Your task to perform on an android device: Search for sushi restaurants on Maps Image 0: 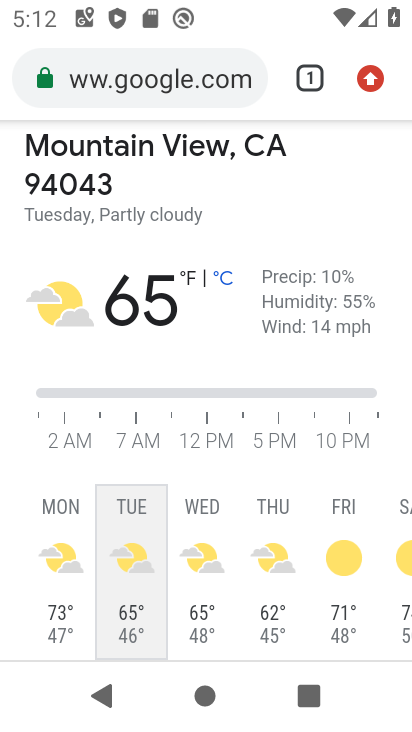
Step 0: press home button
Your task to perform on an android device: Search for sushi restaurants on Maps Image 1: 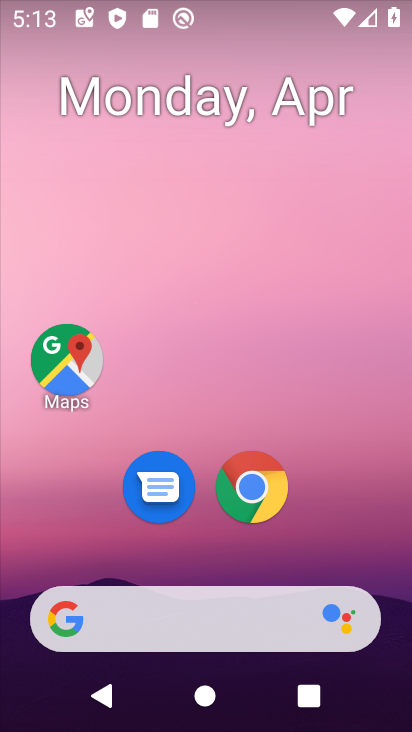
Step 1: click (66, 355)
Your task to perform on an android device: Search for sushi restaurants on Maps Image 2: 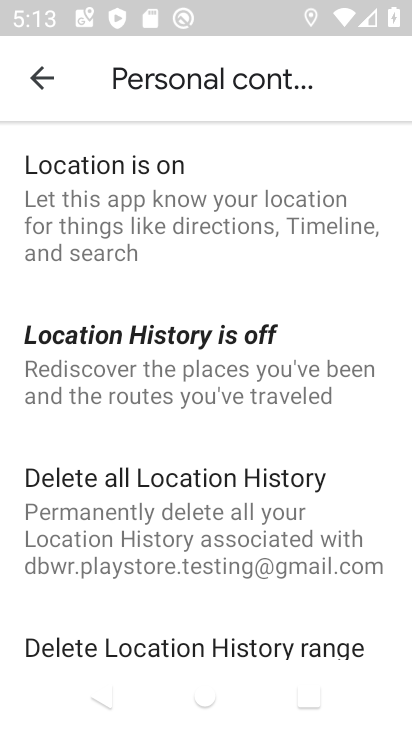
Step 2: press back button
Your task to perform on an android device: Search for sushi restaurants on Maps Image 3: 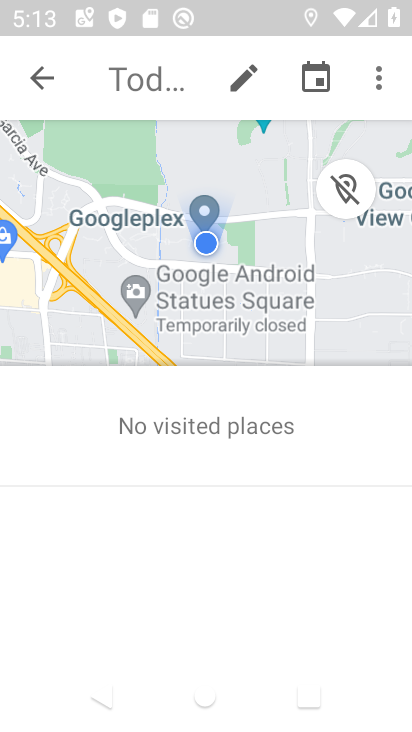
Step 3: press back button
Your task to perform on an android device: Search for sushi restaurants on Maps Image 4: 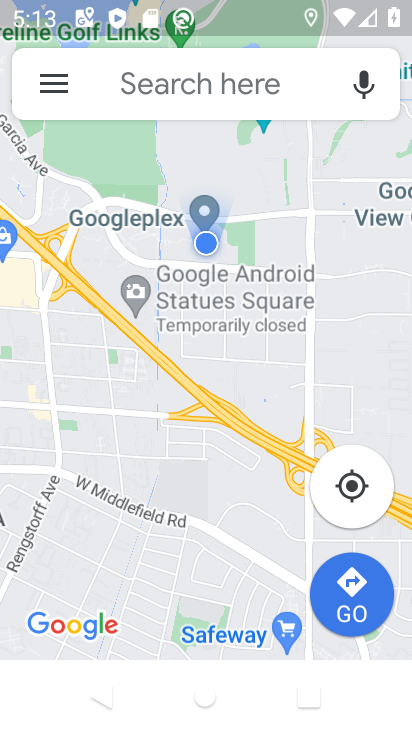
Step 4: click (180, 99)
Your task to perform on an android device: Search for sushi restaurants on Maps Image 5: 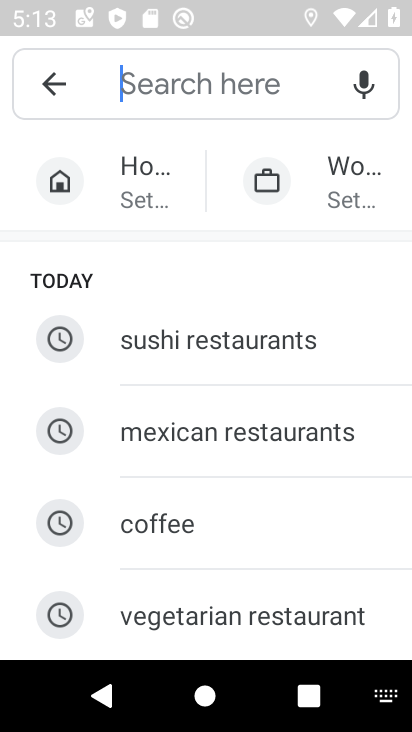
Step 5: click (213, 354)
Your task to perform on an android device: Search for sushi restaurants on Maps Image 6: 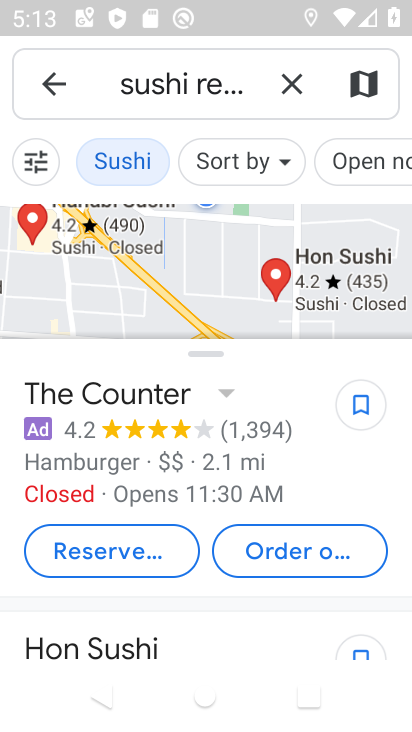
Step 6: task complete